Your task to perform on an android device: turn off javascript in the chrome app Image 0: 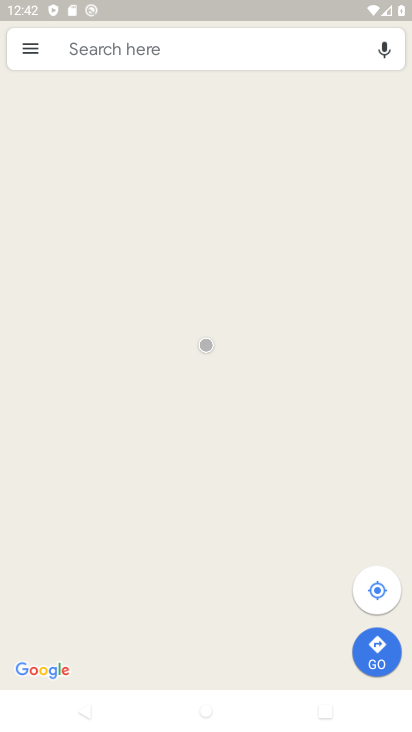
Step 0: press home button
Your task to perform on an android device: turn off javascript in the chrome app Image 1: 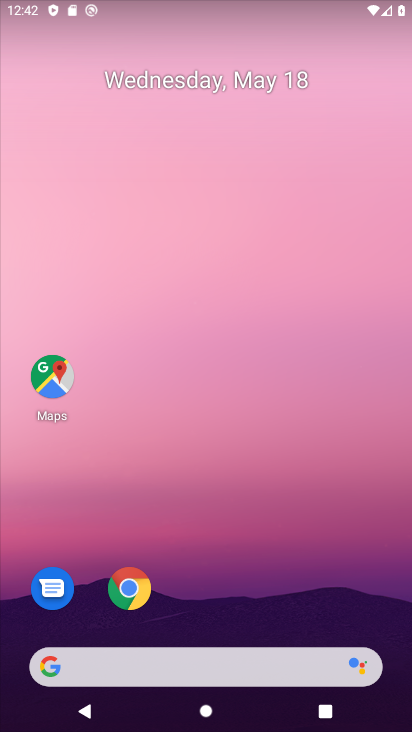
Step 1: drag from (355, 574) to (341, 84)
Your task to perform on an android device: turn off javascript in the chrome app Image 2: 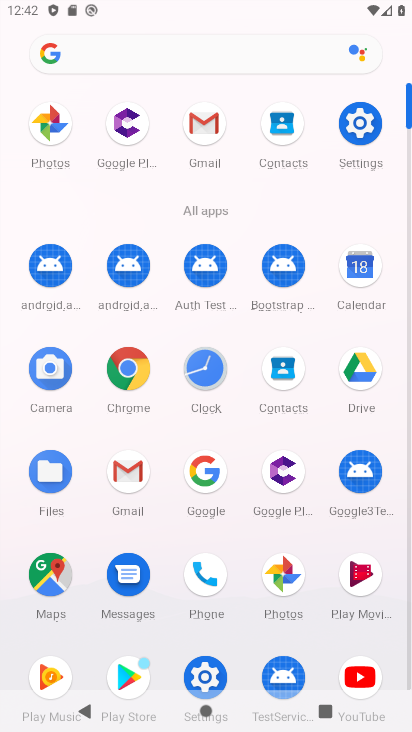
Step 2: click (123, 380)
Your task to perform on an android device: turn off javascript in the chrome app Image 3: 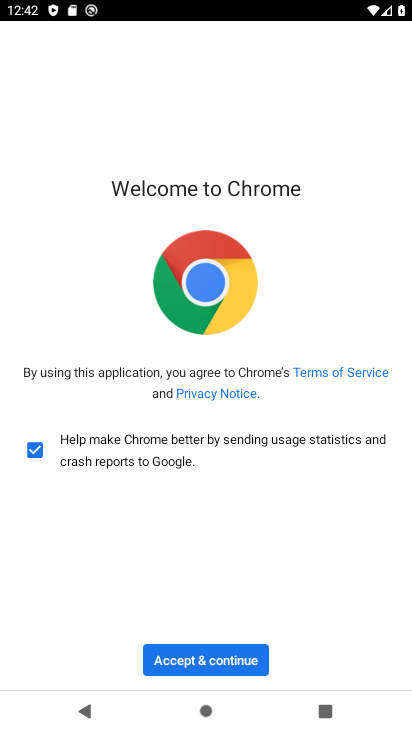
Step 3: click (255, 673)
Your task to perform on an android device: turn off javascript in the chrome app Image 4: 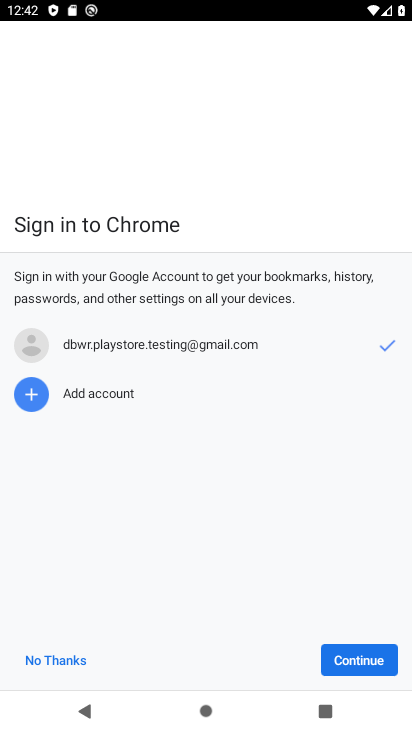
Step 4: click (359, 658)
Your task to perform on an android device: turn off javascript in the chrome app Image 5: 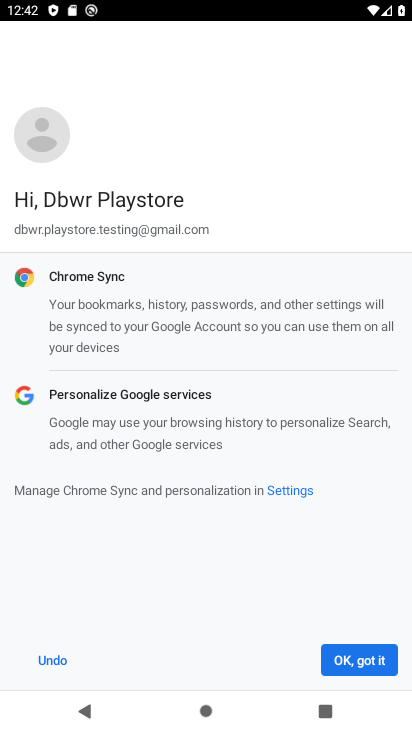
Step 5: click (359, 658)
Your task to perform on an android device: turn off javascript in the chrome app Image 6: 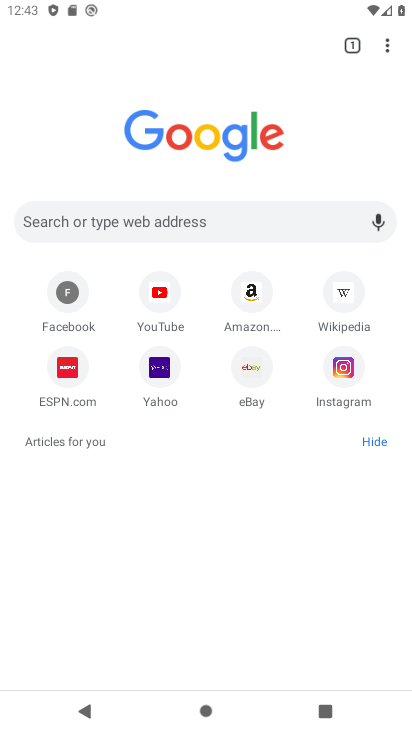
Step 6: click (385, 49)
Your task to perform on an android device: turn off javascript in the chrome app Image 7: 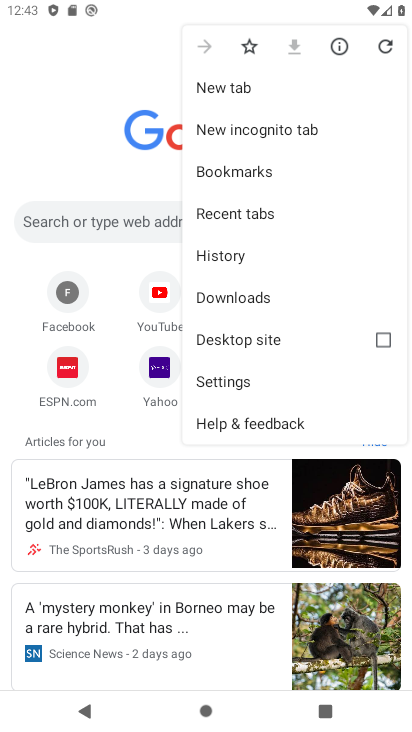
Step 7: click (238, 381)
Your task to perform on an android device: turn off javascript in the chrome app Image 8: 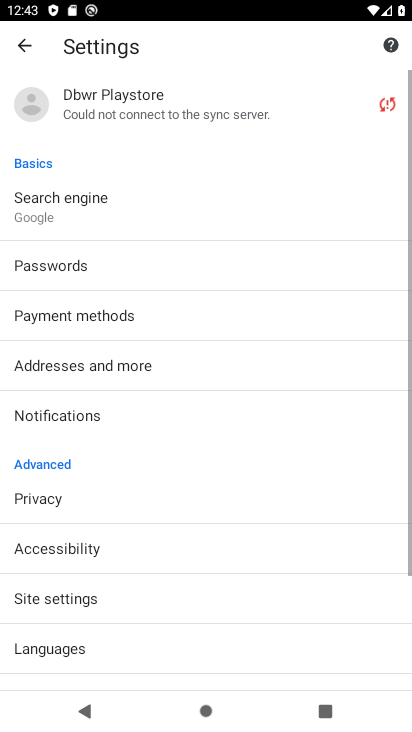
Step 8: drag from (260, 515) to (276, 363)
Your task to perform on an android device: turn off javascript in the chrome app Image 9: 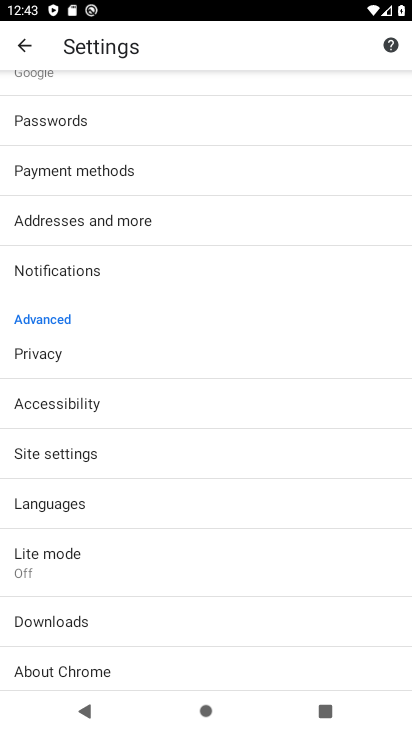
Step 9: drag from (267, 575) to (267, 371)
Your task to perform on an android device: turn off javascript in the chrome app Image 10: 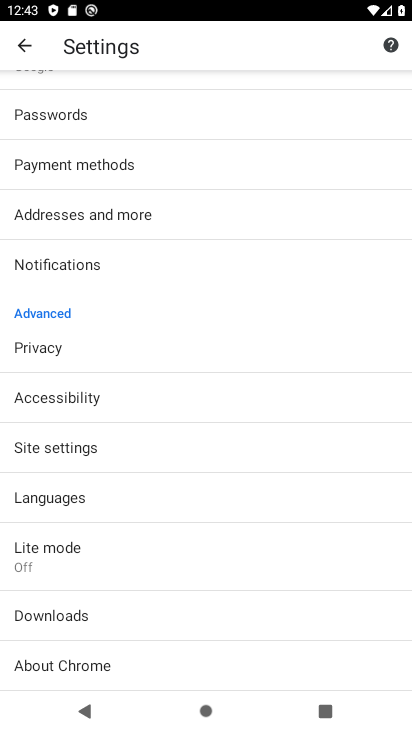
Step 10: drag from (277, 307) to (260, 428)
Your task to perform on an android device: turn off javascript in the chrome app Image 11: 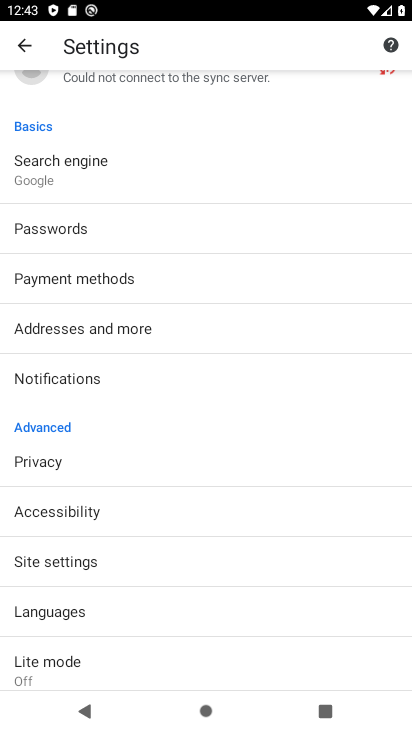
Step 11: drag from (256, 237) to (257, 416)
Your task to perform on an android device: turn off javascript in the chrome app Image 12: 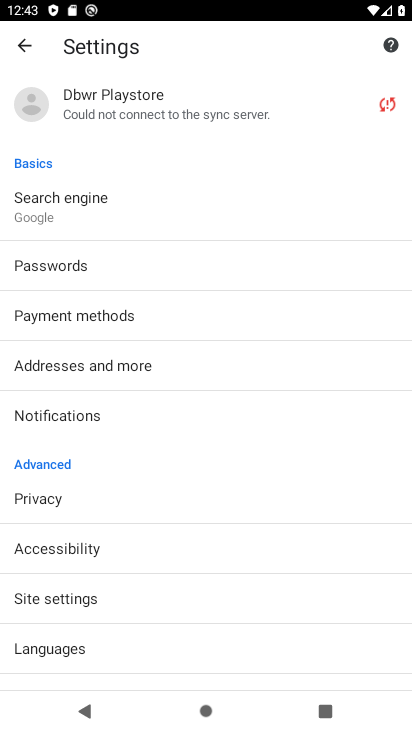
Step 12: drag from (233, 512) to (257, 293)
Your task to perform on an android device: turn off javascript in the chrome app Image 13: 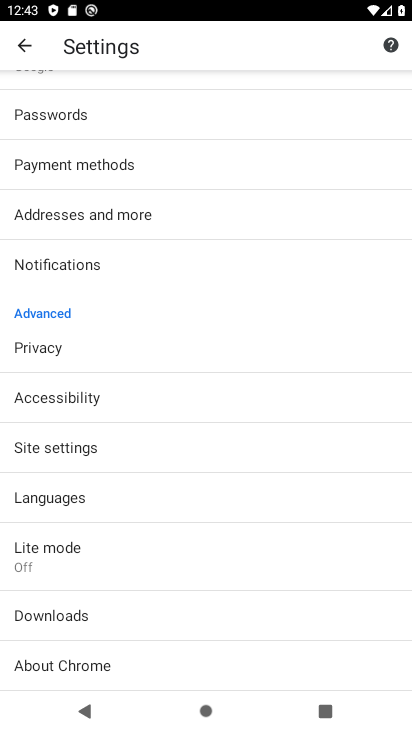
Step 13: click (241, 449)
Your task to perform on an android device: turn off javascript in the chrome app Image 14: 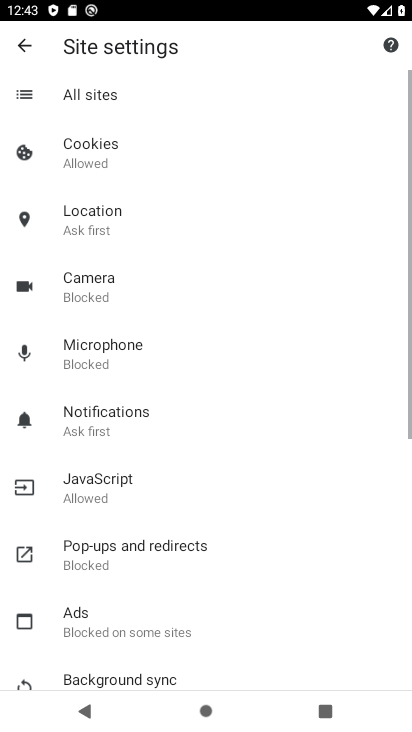
Step 14: drag from (260, 522) to (259, 358)
Your task to perform on an android device: turn off javascript in the chrome app Image 15: 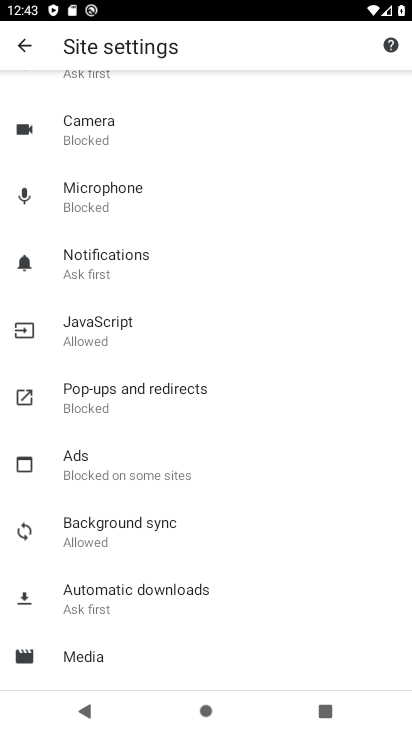
Step 15: drag from (272, 546) to (282, 369)
Your task to perform on an android device: turn off javascript in the chrome app Image 16: 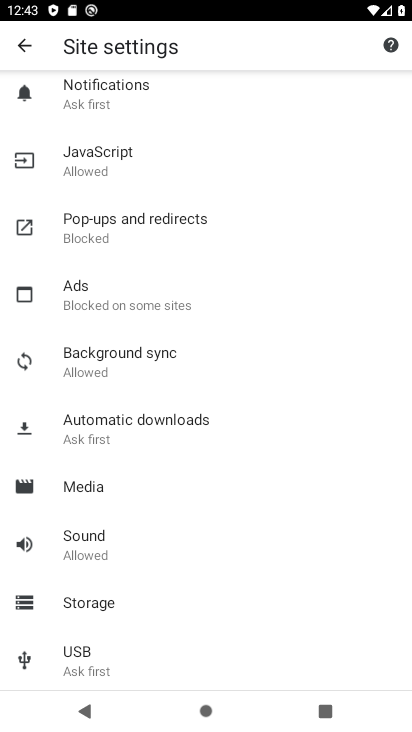
Step 16: drag from (264, 575) to (266, 374)
Your task to perform on an android device: turn off javascript in the chrome app Image 17: 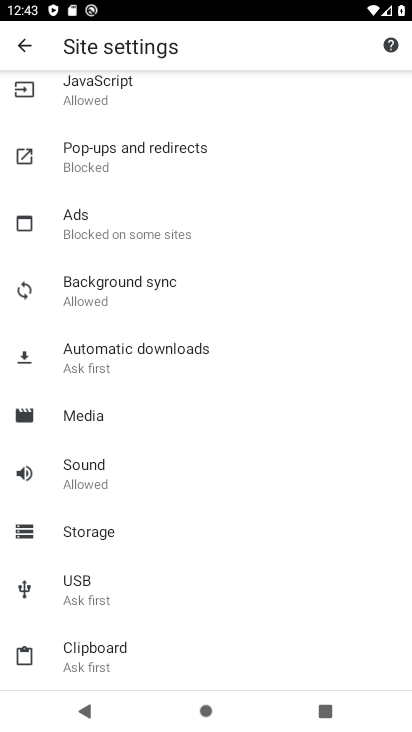
Step 17: drag from (277, 313) to (268, 444)
Your task to perform on an android device: turn off javascript in the chrome app Image 18: 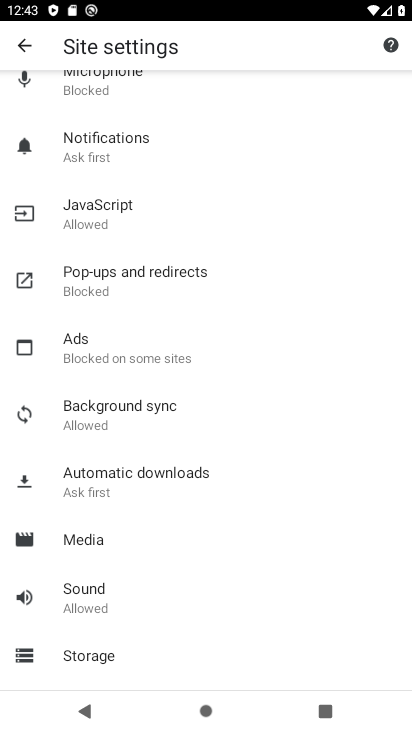
Step 18: drag from (268, 263) to (260, 399)
Your task to perform on an android device: turn off javascript in the chrome app Image 19: 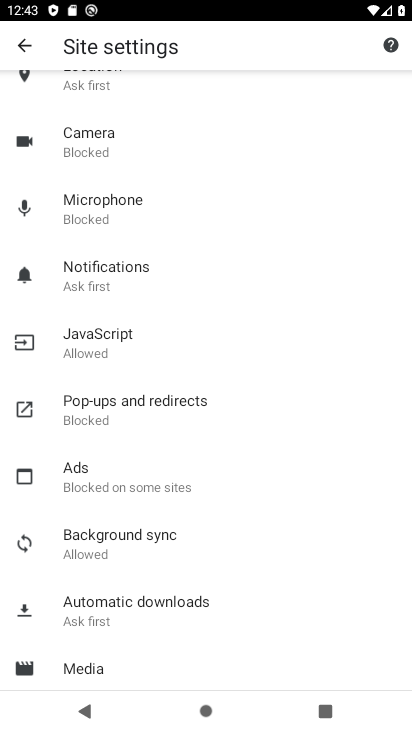
Step 19: click (101, 353)
Your task to perform on an android device: turn off javascript in the chrome app Image 20: 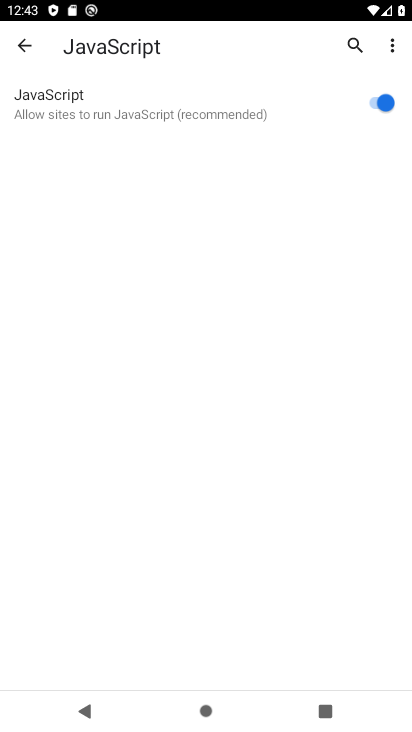
Step 20: click (385, 103)
Your task to perform on an android device: turn off javascript in the chrome app Image 21: 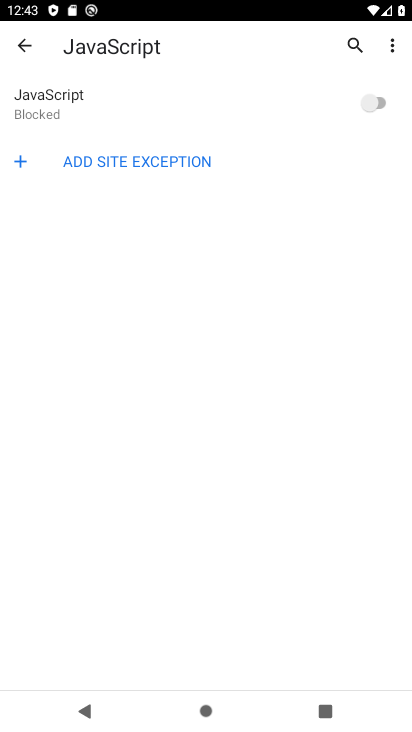
Step 21: task complete